Your task to perform on an android device: Open notification settings Image 0: 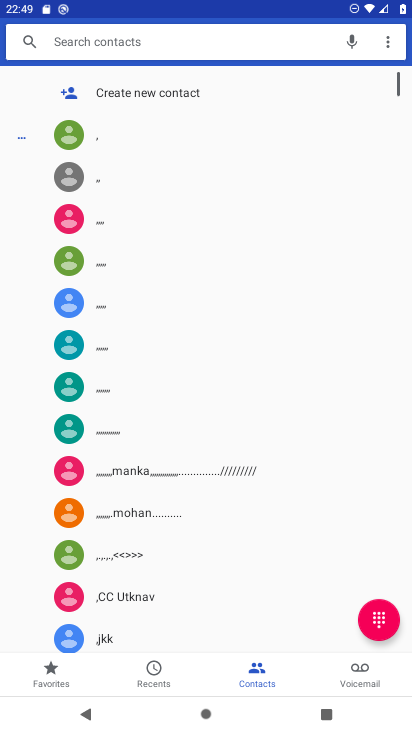
Step 0: press home button
Your task to perform on an android device: Open notification settings Image 1: 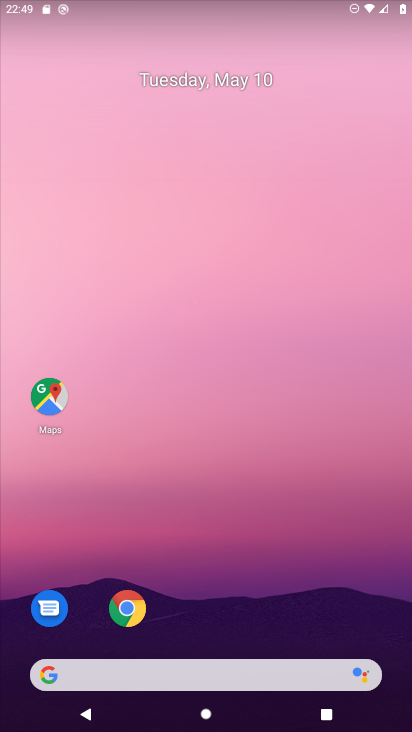
Step 1: drag from (251, 612) to (275, 209)
Your task to perform on an android device: Open notification settings Image 2: 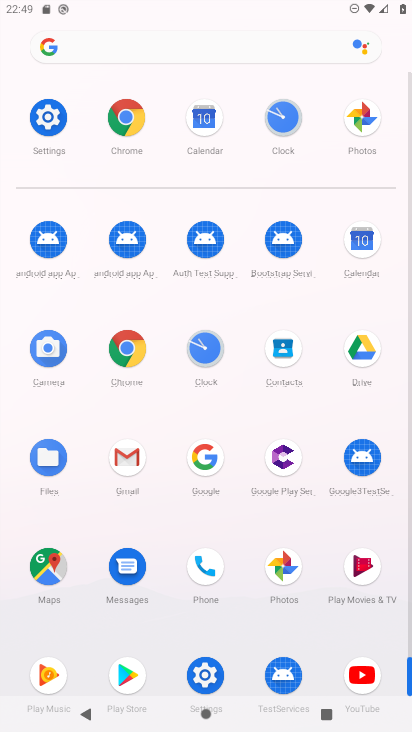
Step 2: click (43, 115)
Your task to perform on an android device: Open notification settings Image 3: 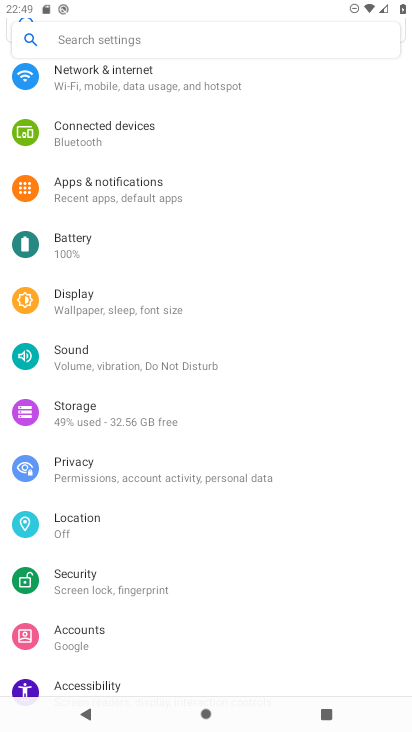
Step 3: click (122, 186)
Your task to perform on an android device: Open notification settings Image 4: 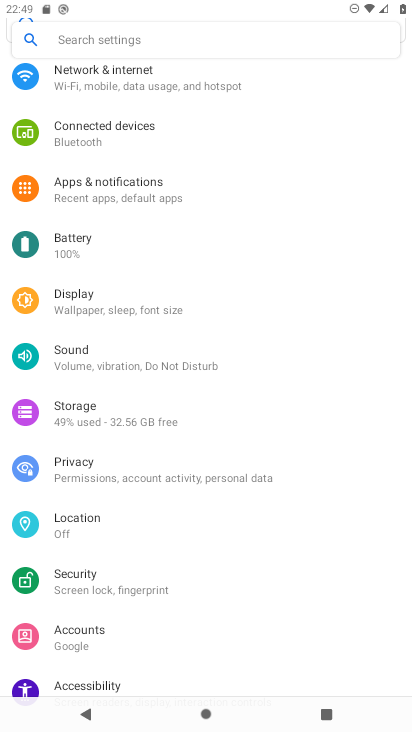
Step 4: click (126, 180)
Your task to perform on an android device: Open notification settings Image 5: 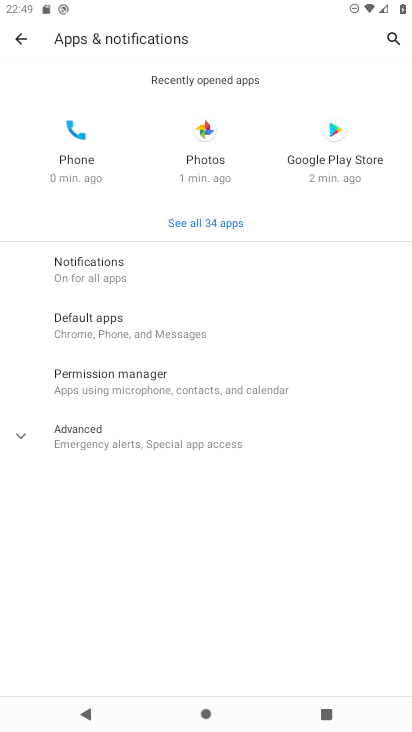
Step 5: click (111, 265)
Your task to perform on an android device: Open notification settings Image 6: 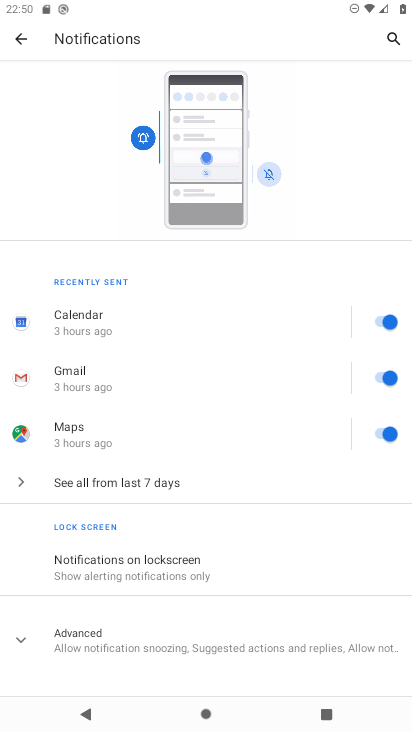
Step 6: task complete